Your task to perform on an android device: Open ESPN.com Image 0: 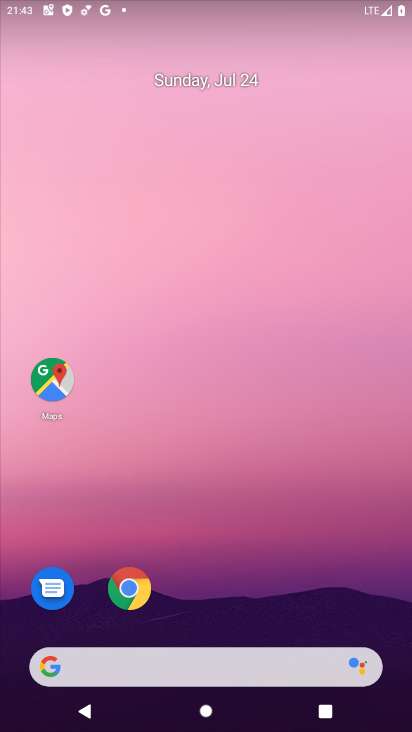
Step 0: click (145, 600)
Your task to perform on an android device: Open ESPN.com Image 1: 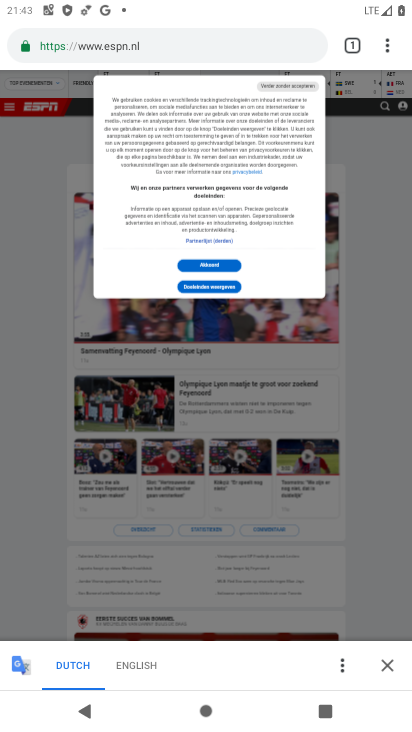
Step 1: task complete